Your task to perform on an android device: turn off smart reply in the gmail app Image 0: 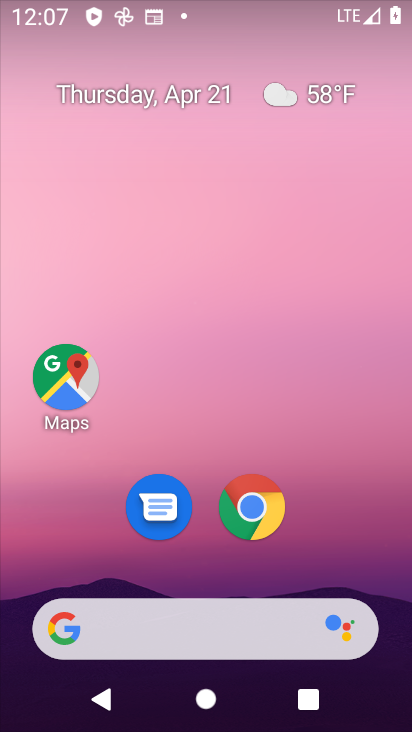
Step 0: drag from (334, 526) to (342, 127)
Your task to perform on an android device: turn off smart reply in the gmail app Image 1: 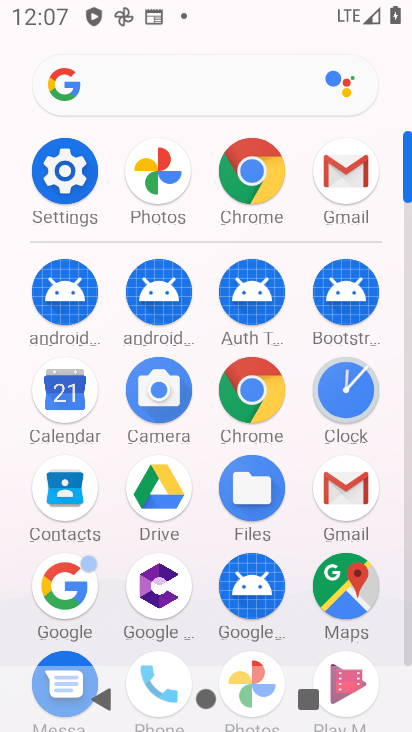
Step 1: click (348, 490)
Your task to perform on an android device: turn off smart reply in the gmail app Image 2: 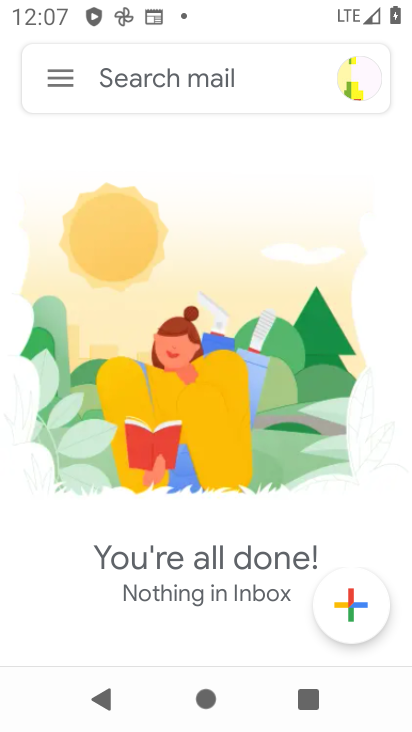
Step 2: click (60, 78)
Your task to perform on an android device: turn off smart reply in the gmail app Image 3: 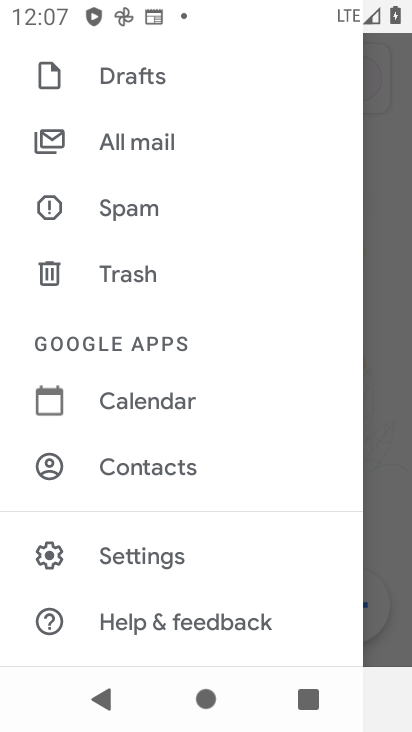
Step 3: drag from (289, 228) to (293, 383)
Your task to perform on an android device: turn off smart reply in the gmail app Image 4: 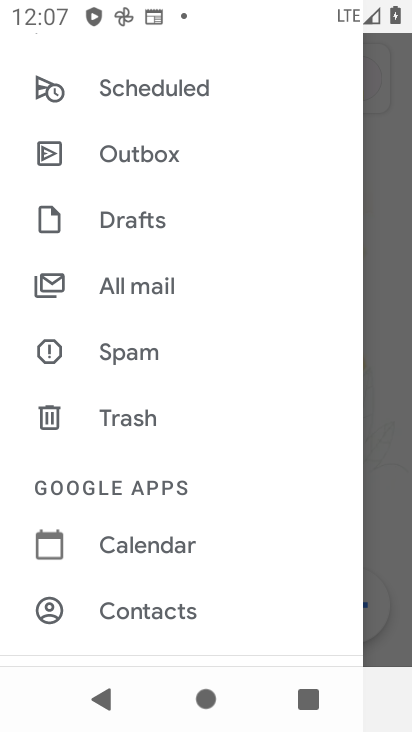
Step 4: drag from (313, 237) to (308, 445)
Your task to perform on an android device: turn off smart reply in the gmail app Image 5: 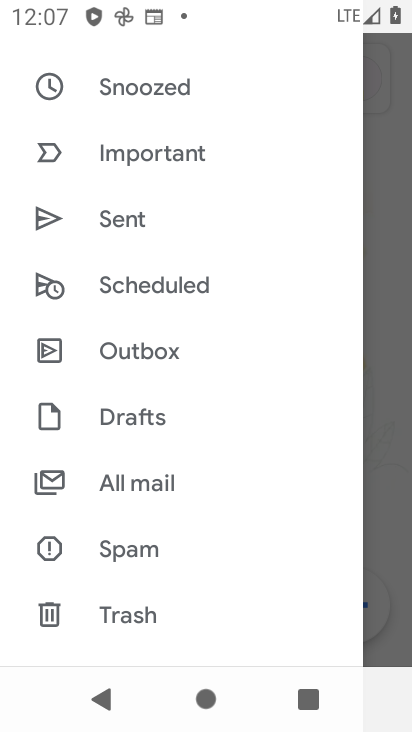
Step 5: drag from (296, 221) to (290, 485)
Your task to perform on an android device: turn off smart reply in the gmail app Image 6: 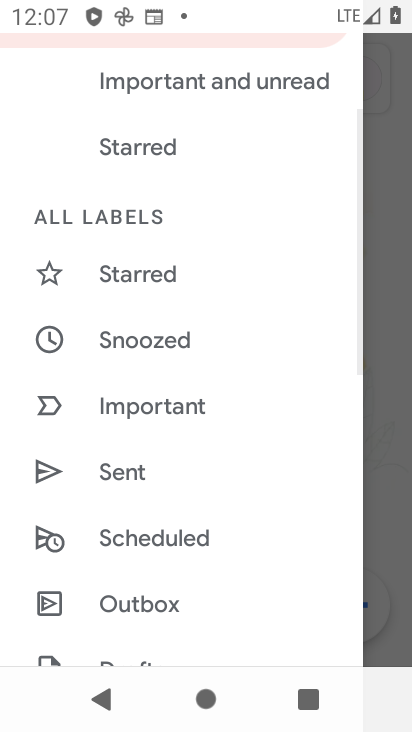
Step 6: drag from (278, 244) to (263, 494)
Your task to perform on an android device: turn off smart reply in the gmail app Image 7: 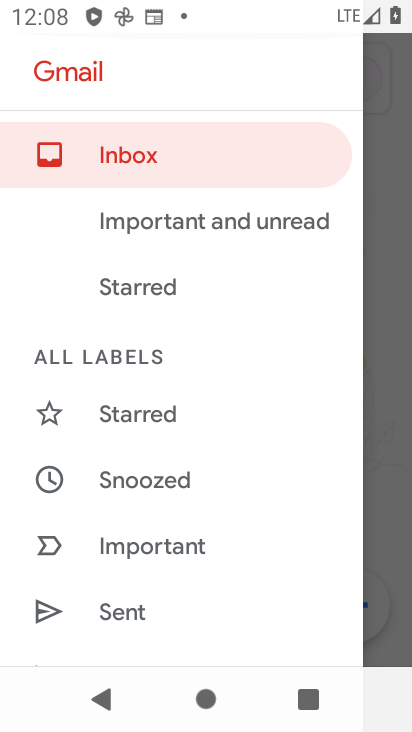
Step 7: drag from (248, 542) to (255, 323)
Your task to perform on an android device: turn off smart reply in the gmail app Image 8: 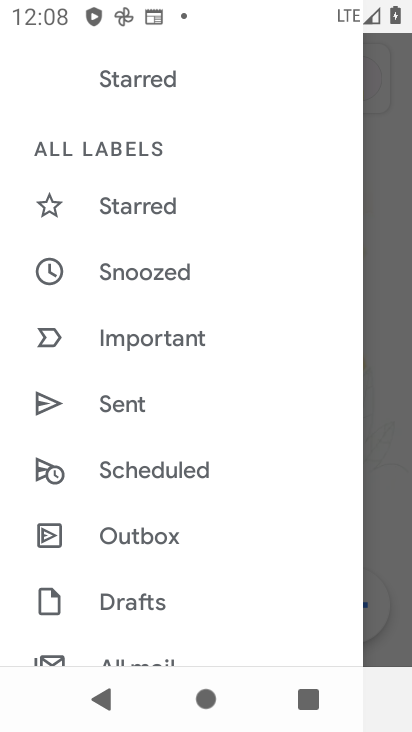
Step 8: drag from (262, 566) to (271, 306)
Your task to perform on an android device: turn off smart reply in the gmail app Image 9: 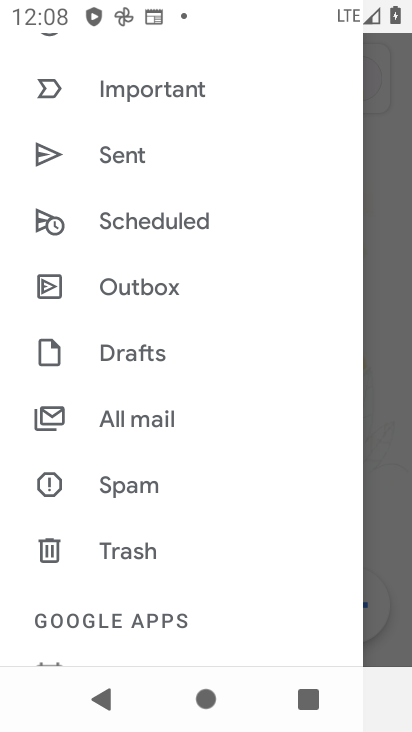
Step 9: drag from (273, 559) to (287, 344)
Your task to perform on an android device: turn off smart reply in the gmail app Image 10: 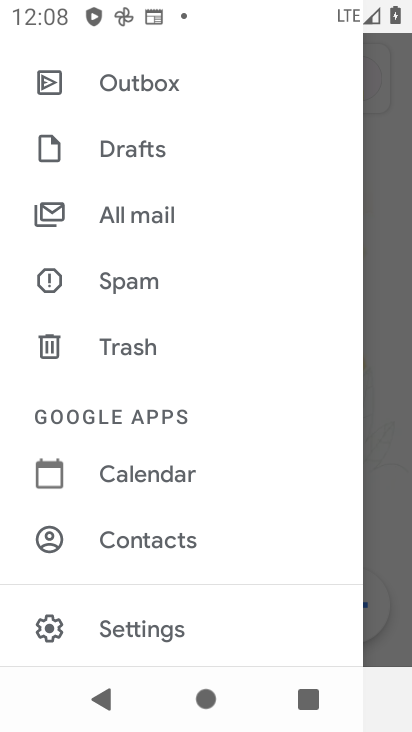
Step 10: drag from (267, 595) to (266, 352)
Your task to perform on an android device: turn off smart reply in the gmail app Image 11: 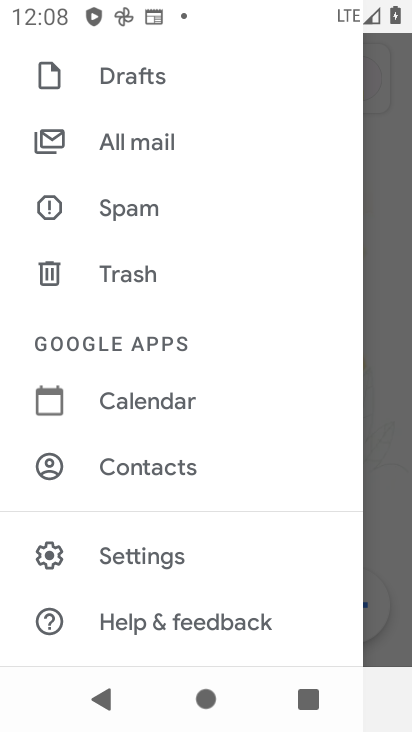
Step 11: click (145, 564)
Your task to perform on an android device: turn off smart reply in the gmail app Image 12: 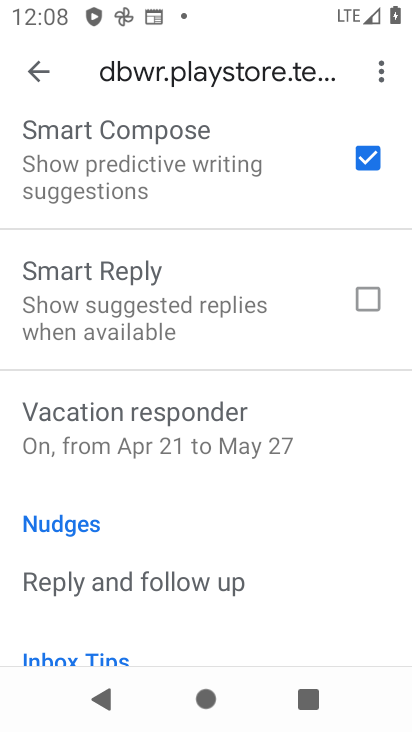
Step 12: task complete